Your task to perform on an android device: uninstall "Gmail" Image 0: 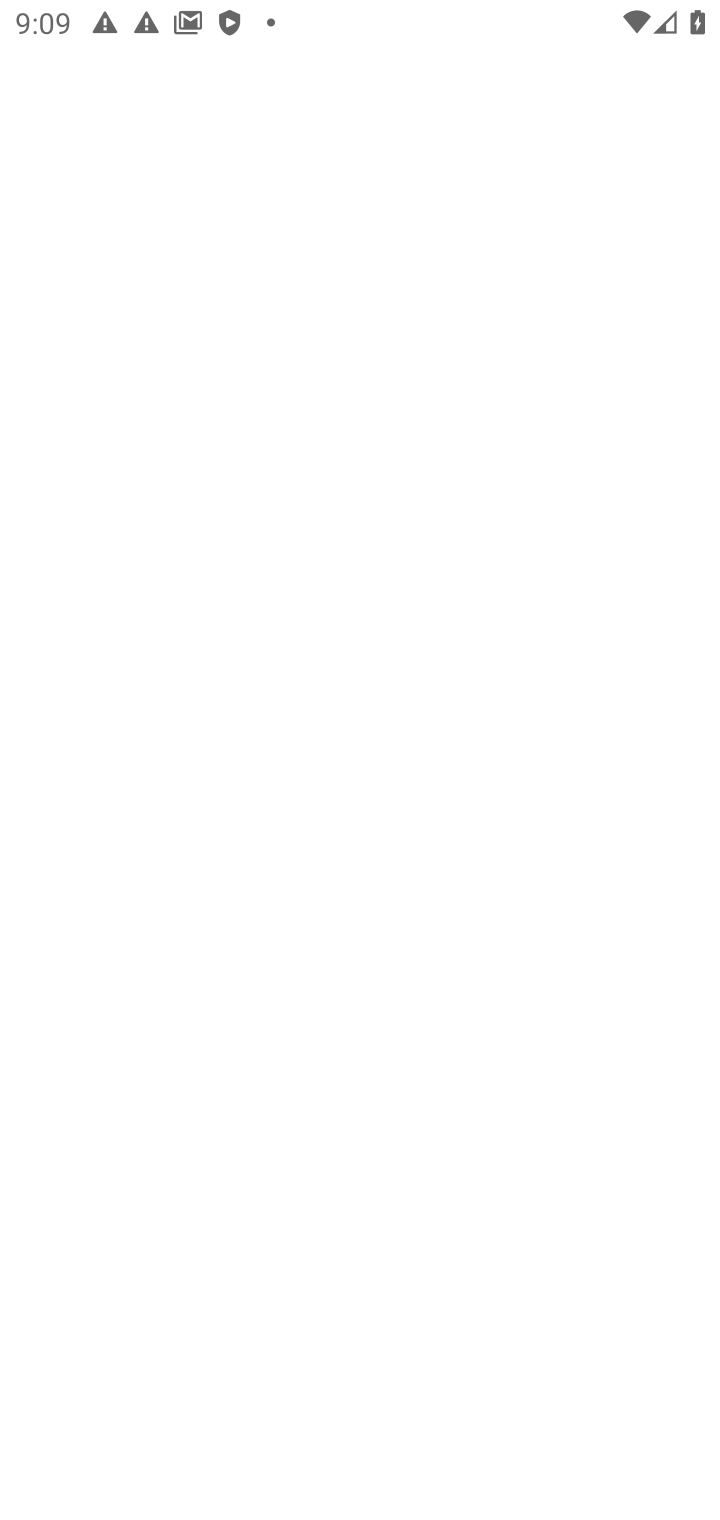
Step 0: press home button
Your task to perform on an android device: uninstall "Gmail" Image 1: 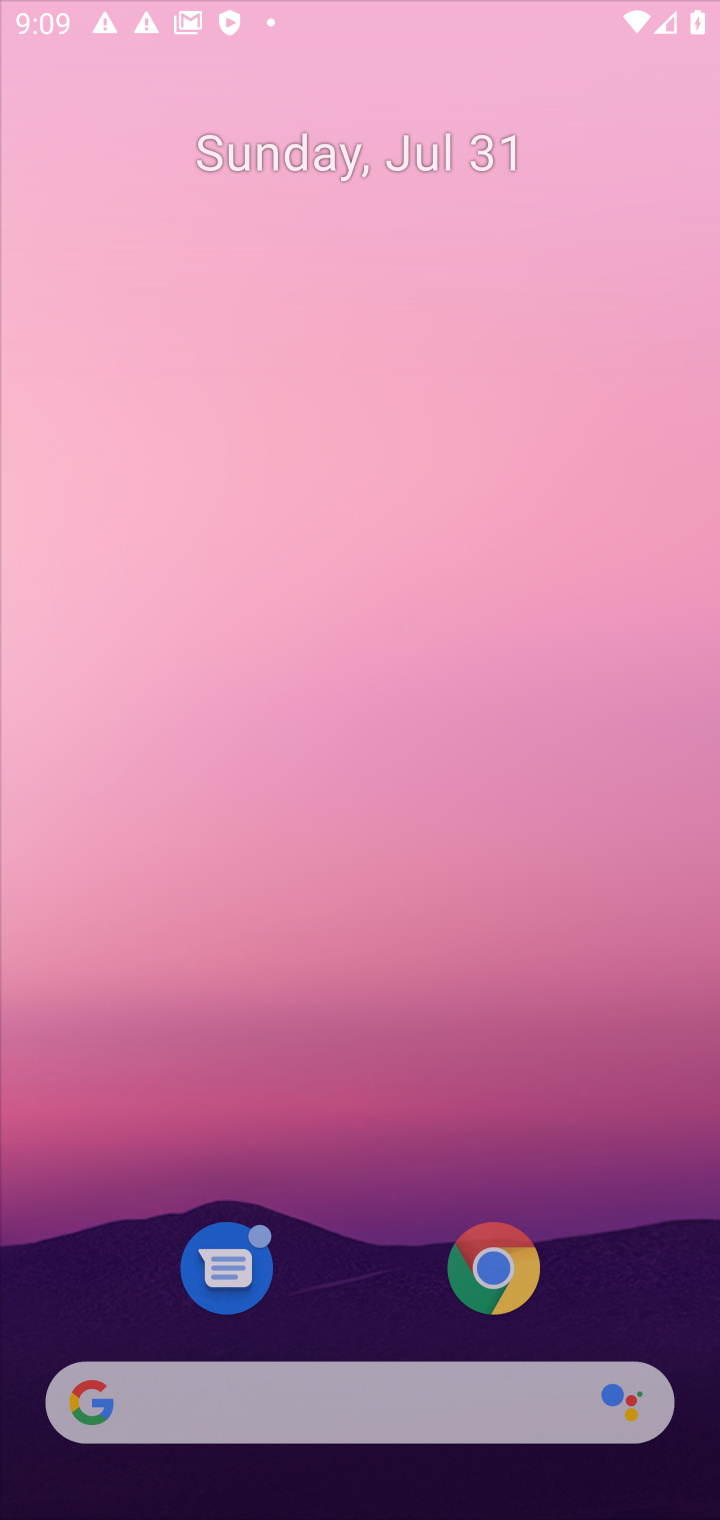
Step 1: drag from (608, 1024) to (608, 161)
Your task to perform on an android device: uninstall "Gmail" Image 2: 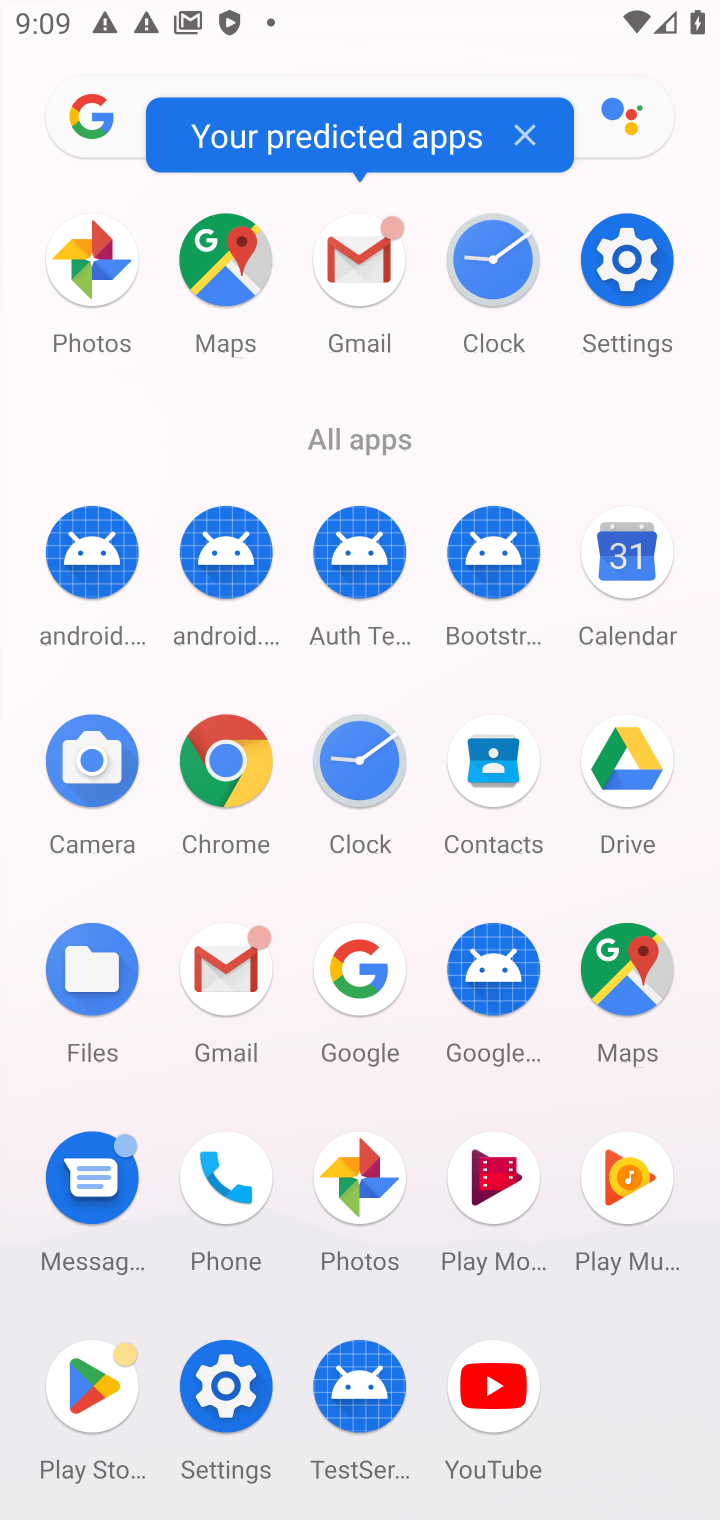
Step 2: click (91, 1393)
Your task to perform on an android device: uninstall "Gmail" Image 3: 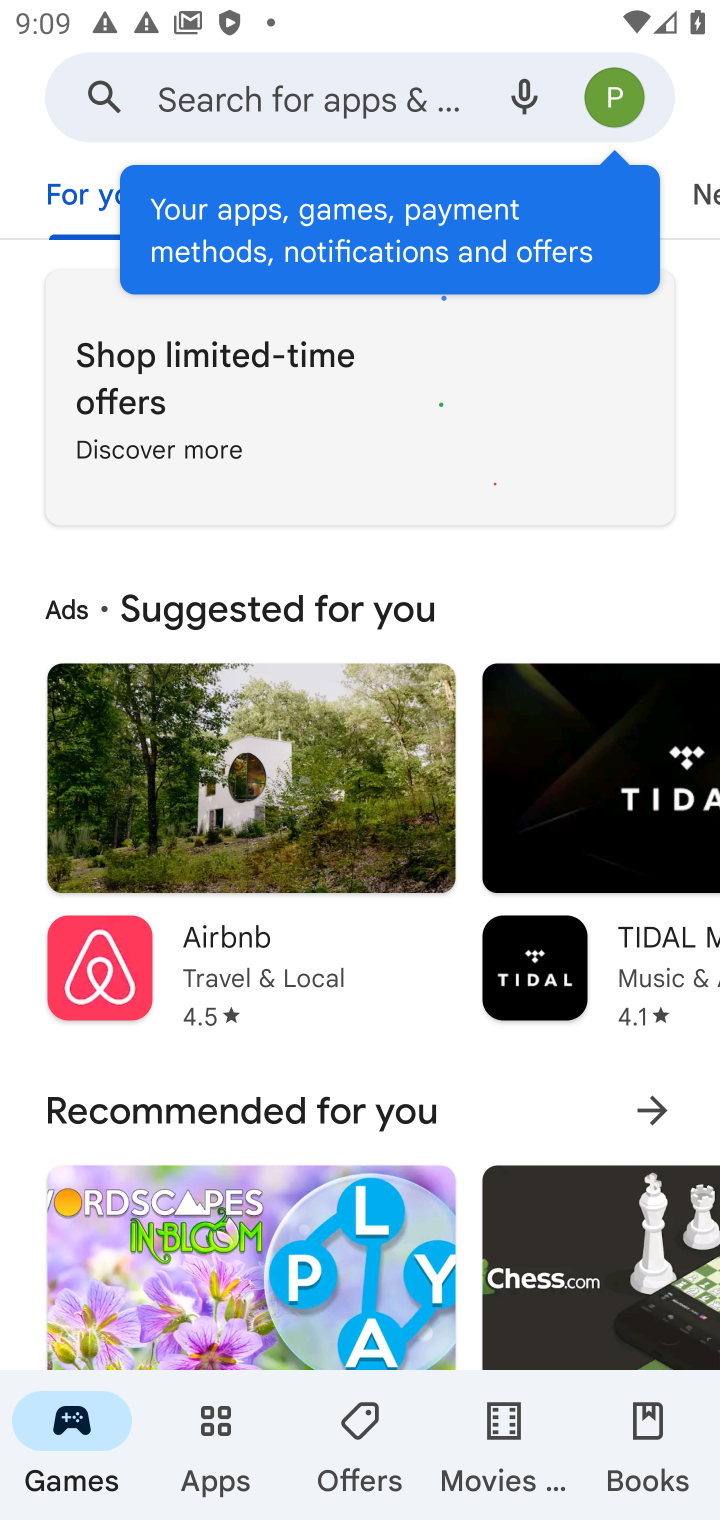
Step 3: click (362, 108)
Your task to perform on an android device: uninstall "Gmail" Image 4: 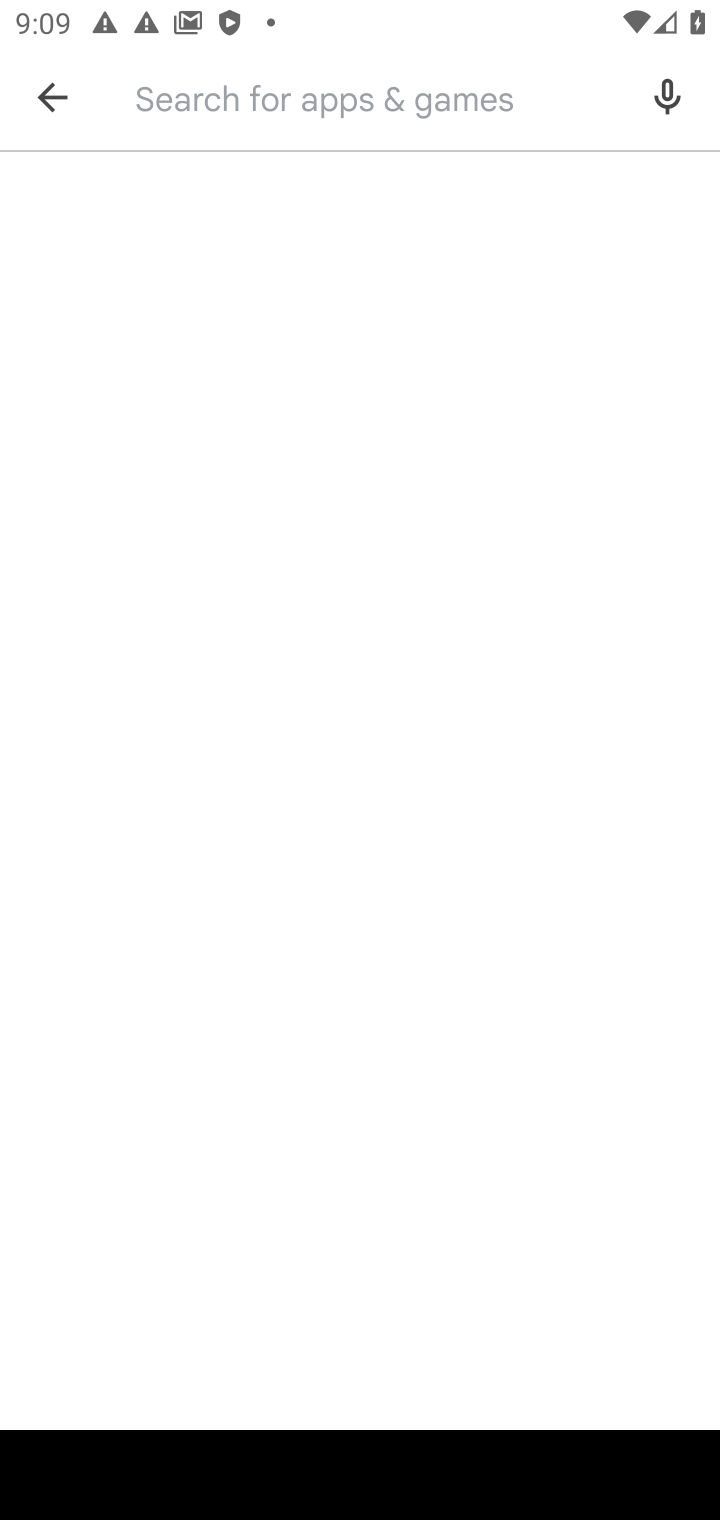
Step 4: type "gmail"
Your task to perform on an android device: uninstall "Gmail" Image 5: 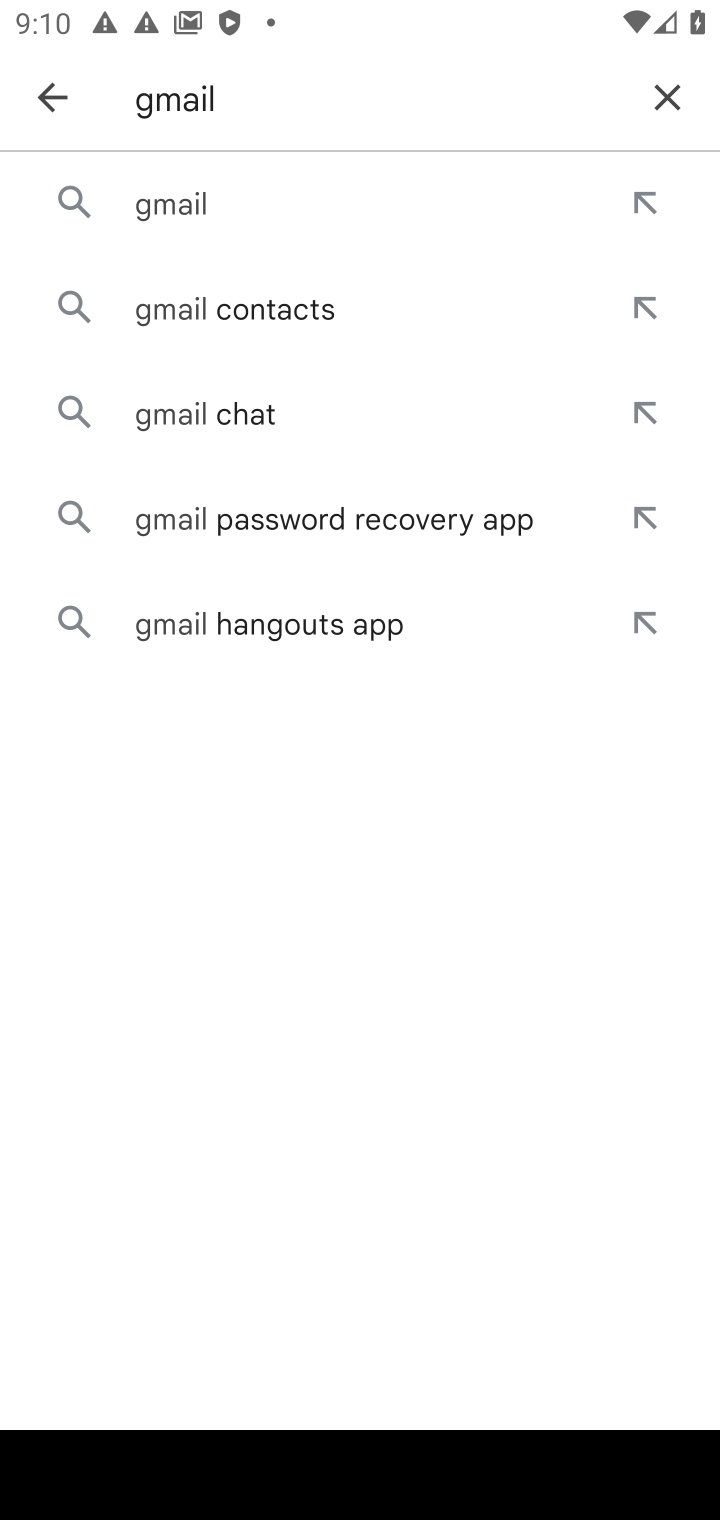
Step 5: click (259, 198)
Your task to perform on an android device: uninstall "Gmail" Image 6: 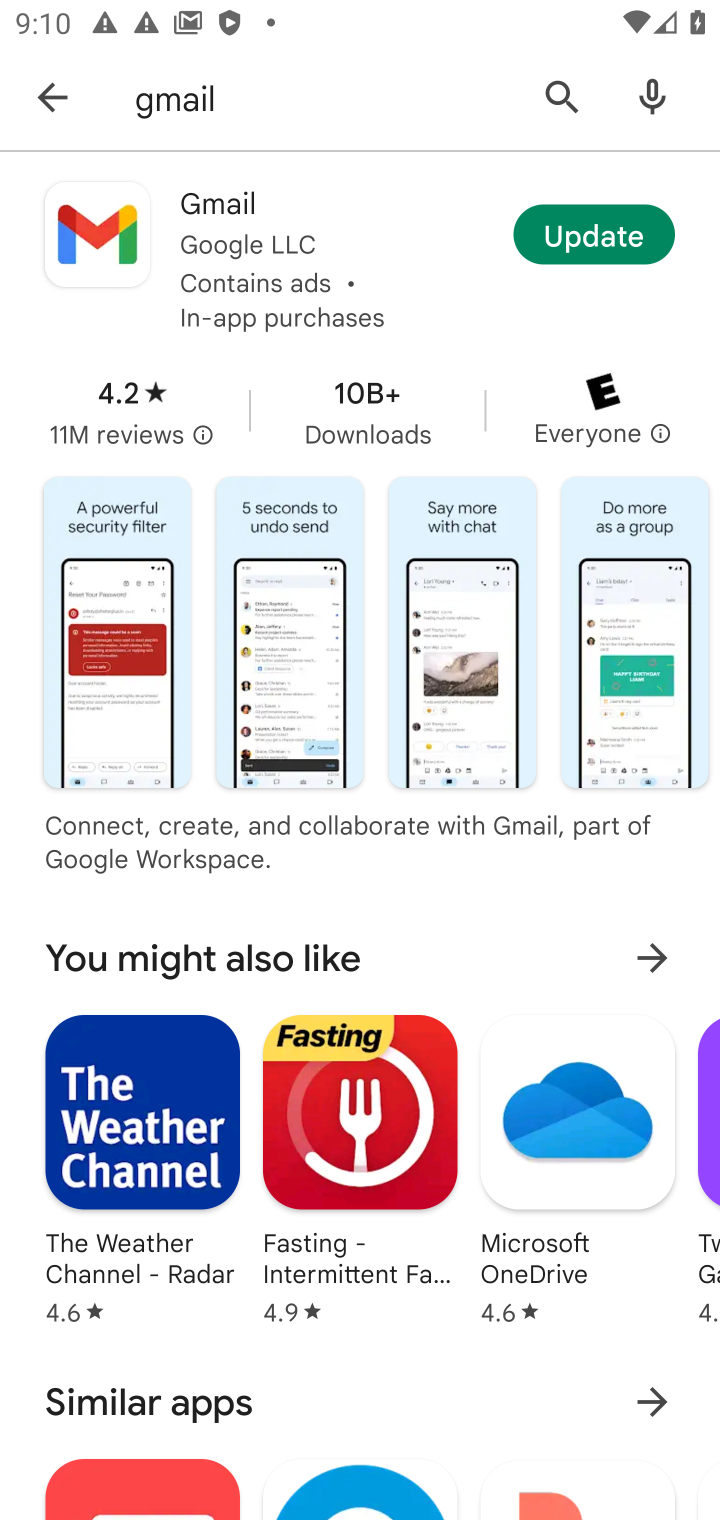
Step 6: click (585, 232)
Your task to perform on an android device: uninstall "Gmail" Image 7: 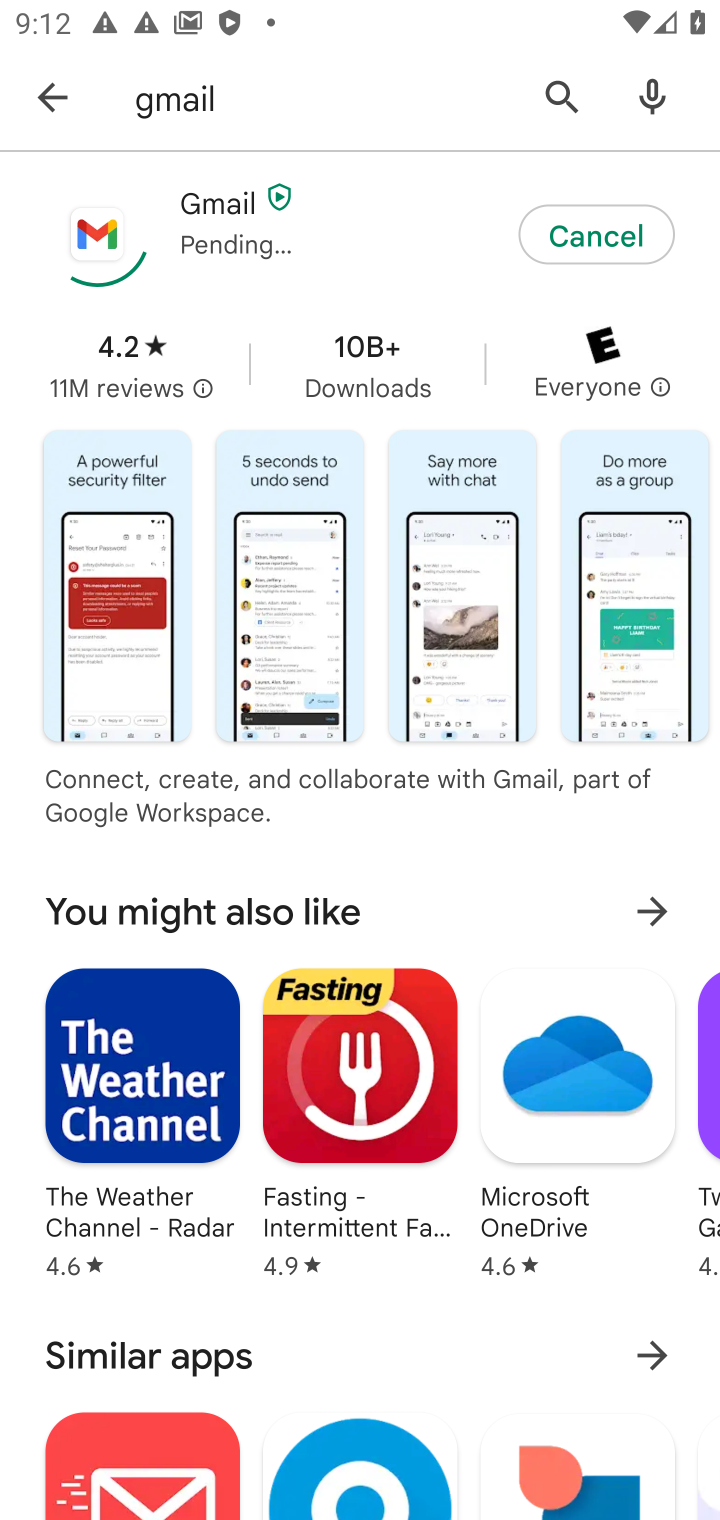
Step 7: task complete